Your task to perform on an android device: When is my next meeting? Image 0: 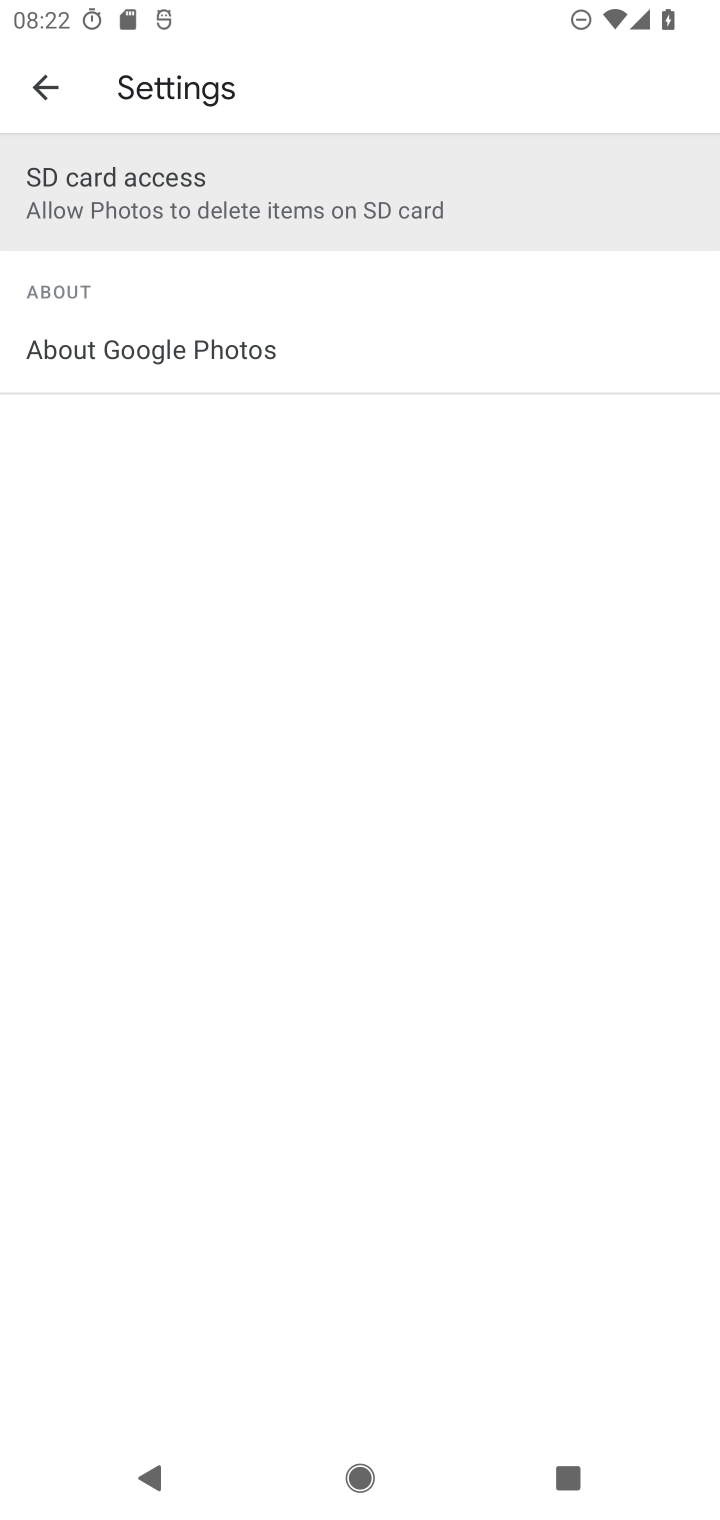
Step 0: press home button
Your task to perform on an android device: When is my next meeting? Image 1: 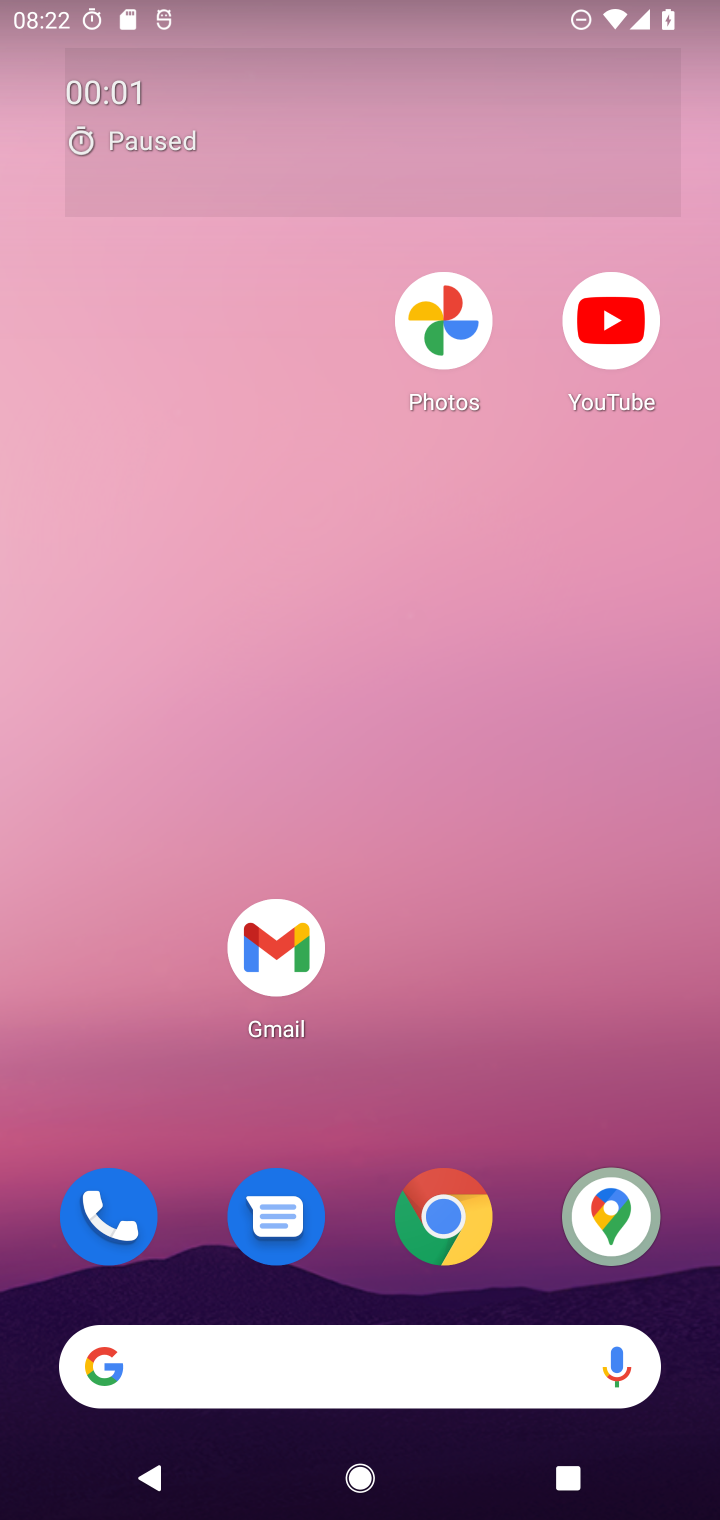
Step 1: drag from (537, 1137) to (466, 140)
Your task to perform on an android device: When is my next meeting? Image 2: 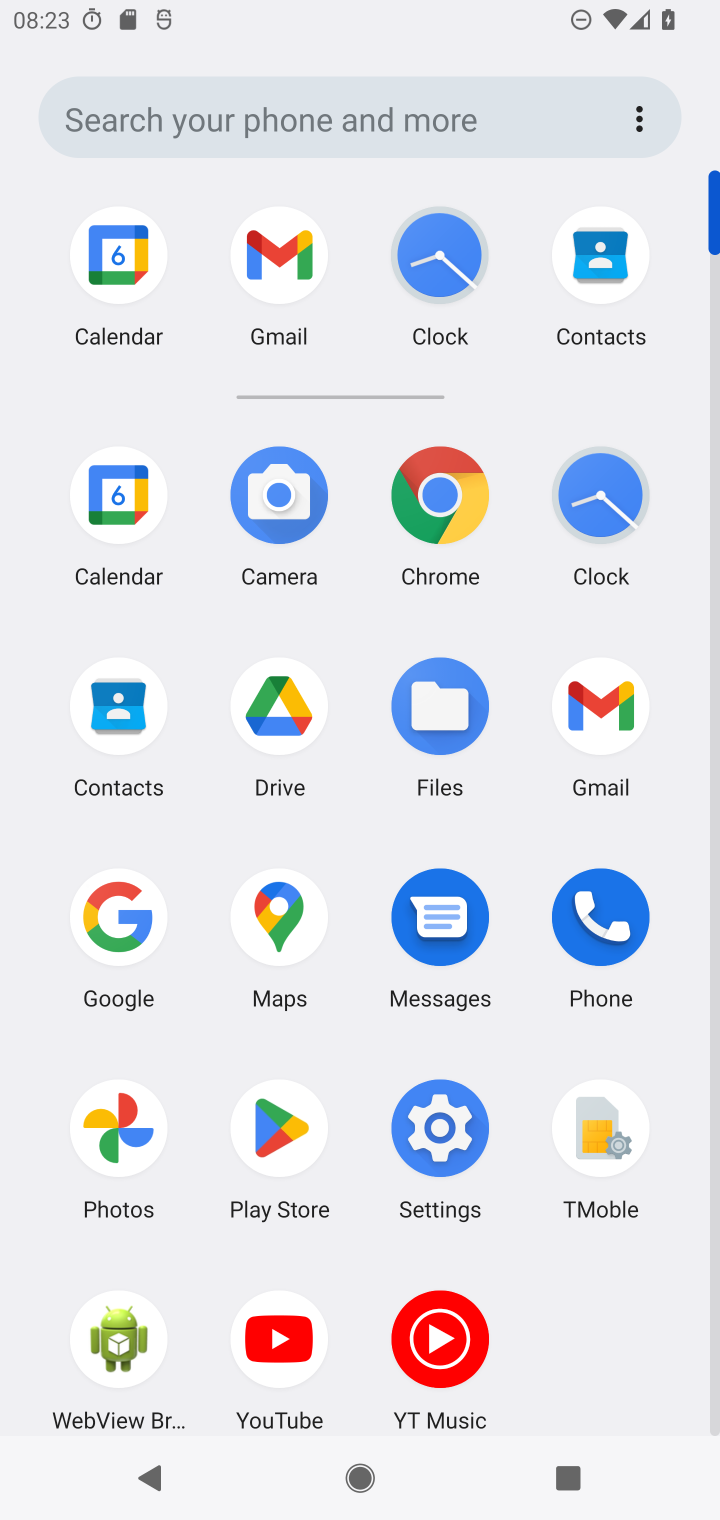
Step 2: click (115, 499)
Your task to perform on an android device: When is my next meeting? Image 3: 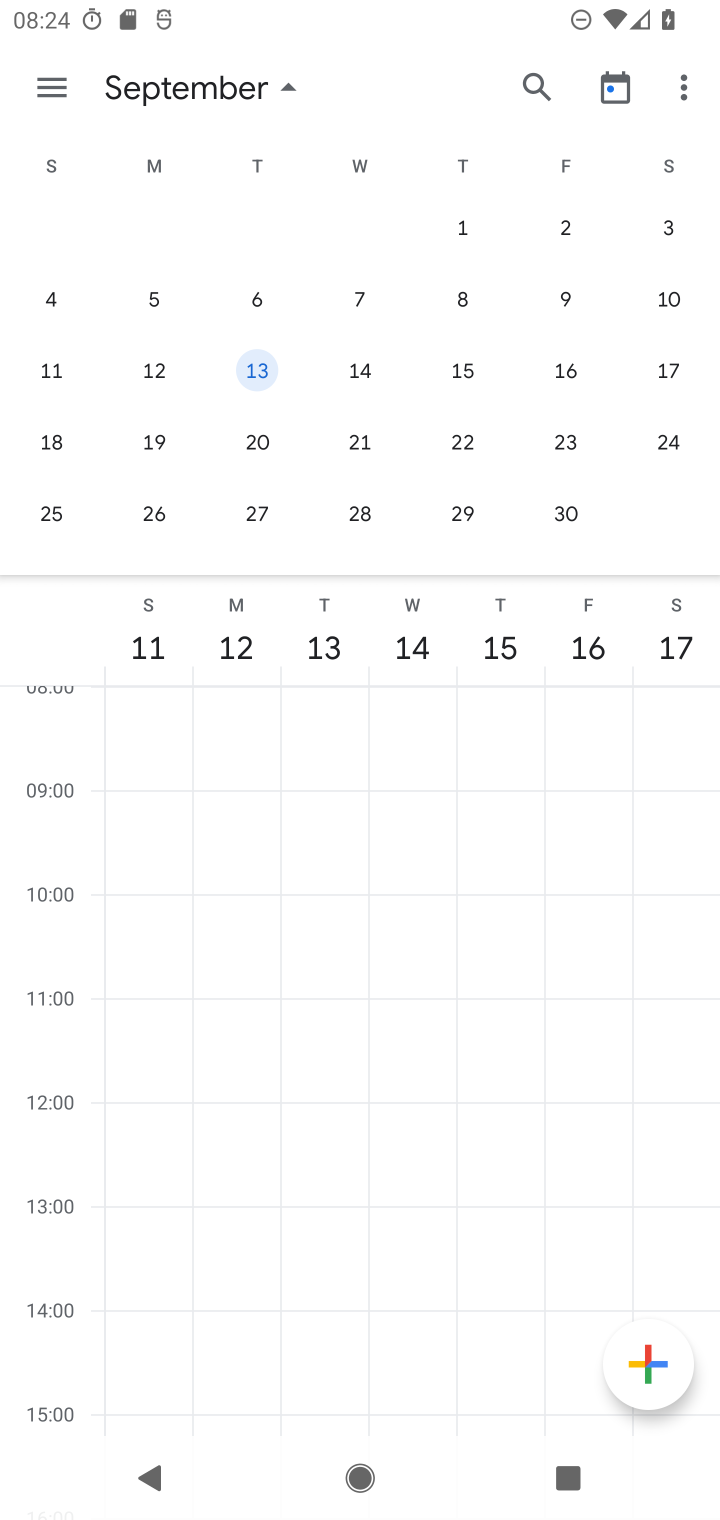
Step 3: drag from (132, 349) to (714, 367)
Your task to perform on an android device: When is my next meeting? Image 4: 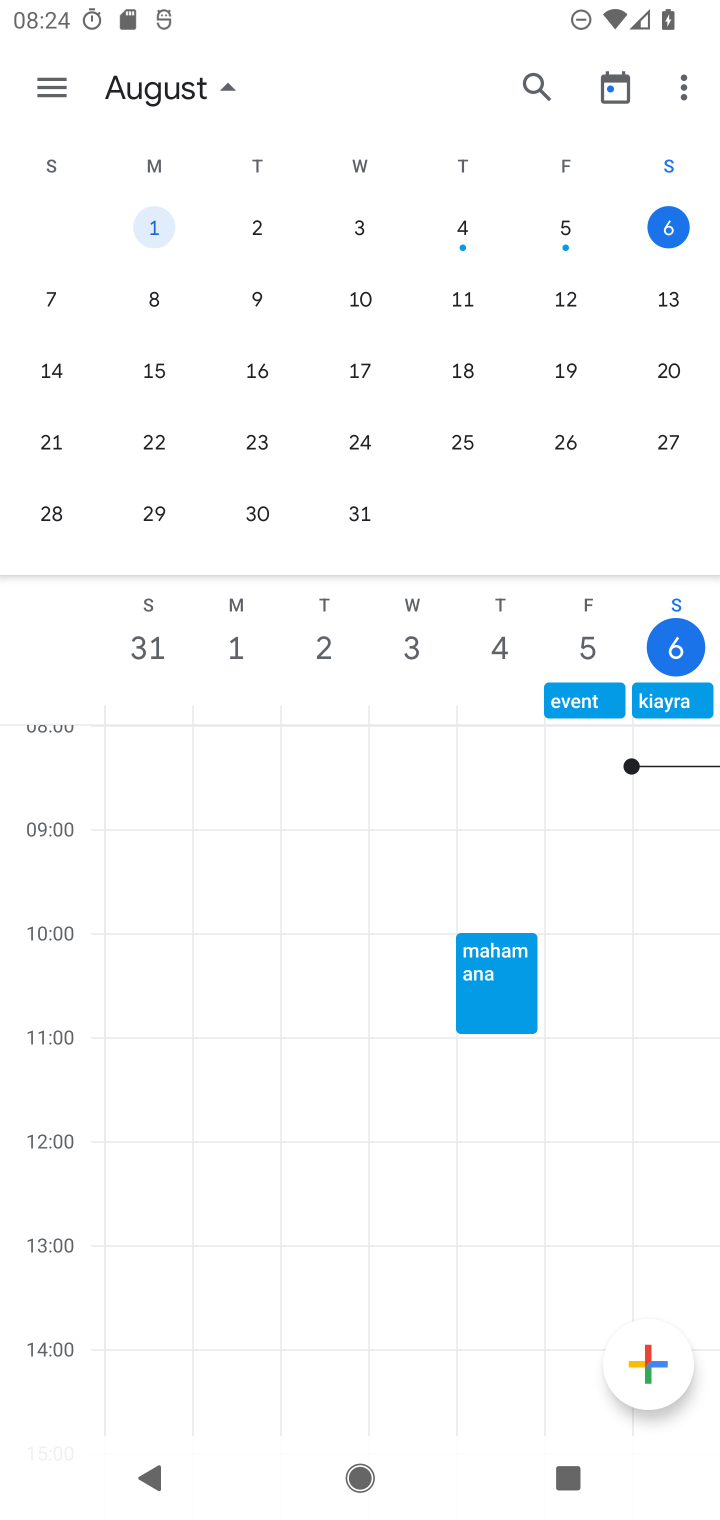
Step 4: click (576, 367)
Your task to perform on an android device: When is my next meeting? Image 5: 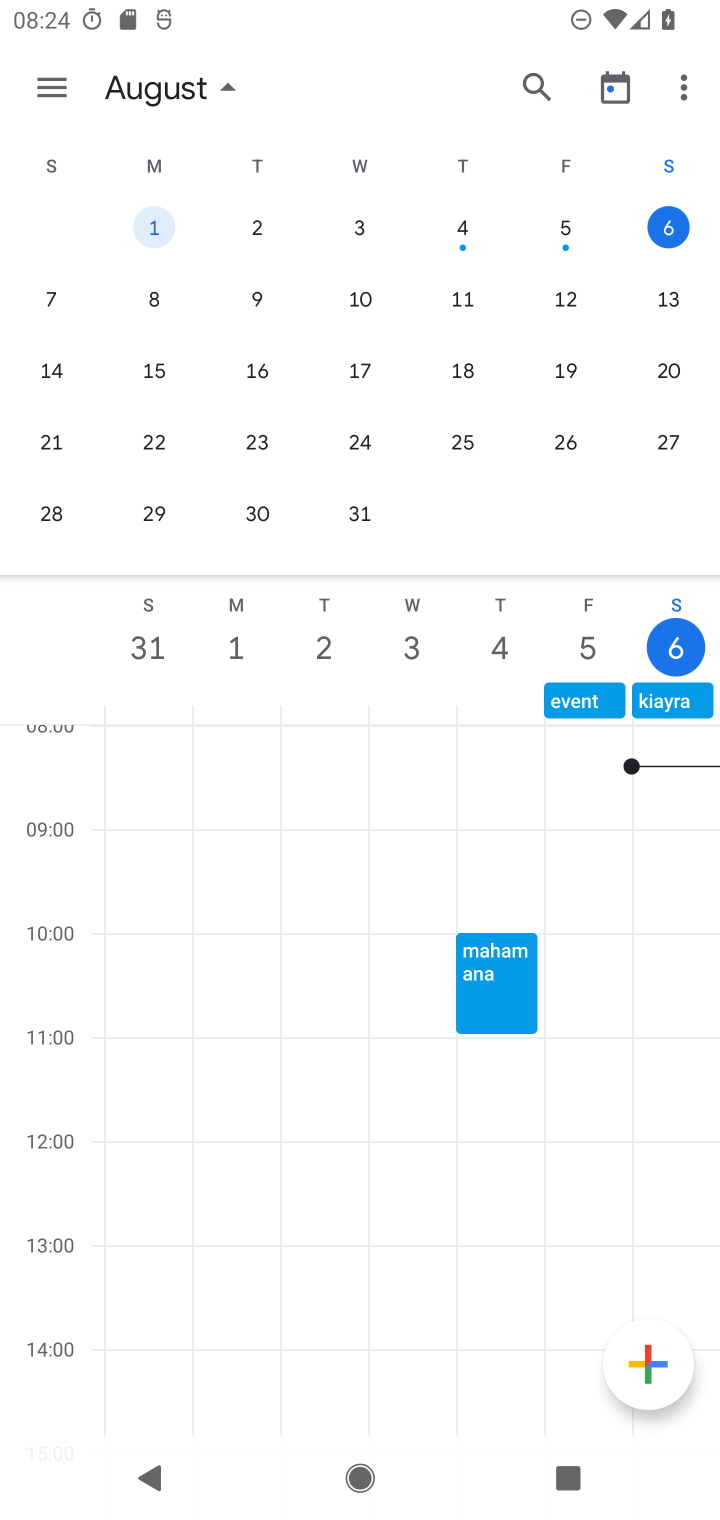
Step 5: click (161, 291)
Your task to perform on an android device: When is my next meeting? Image 6: 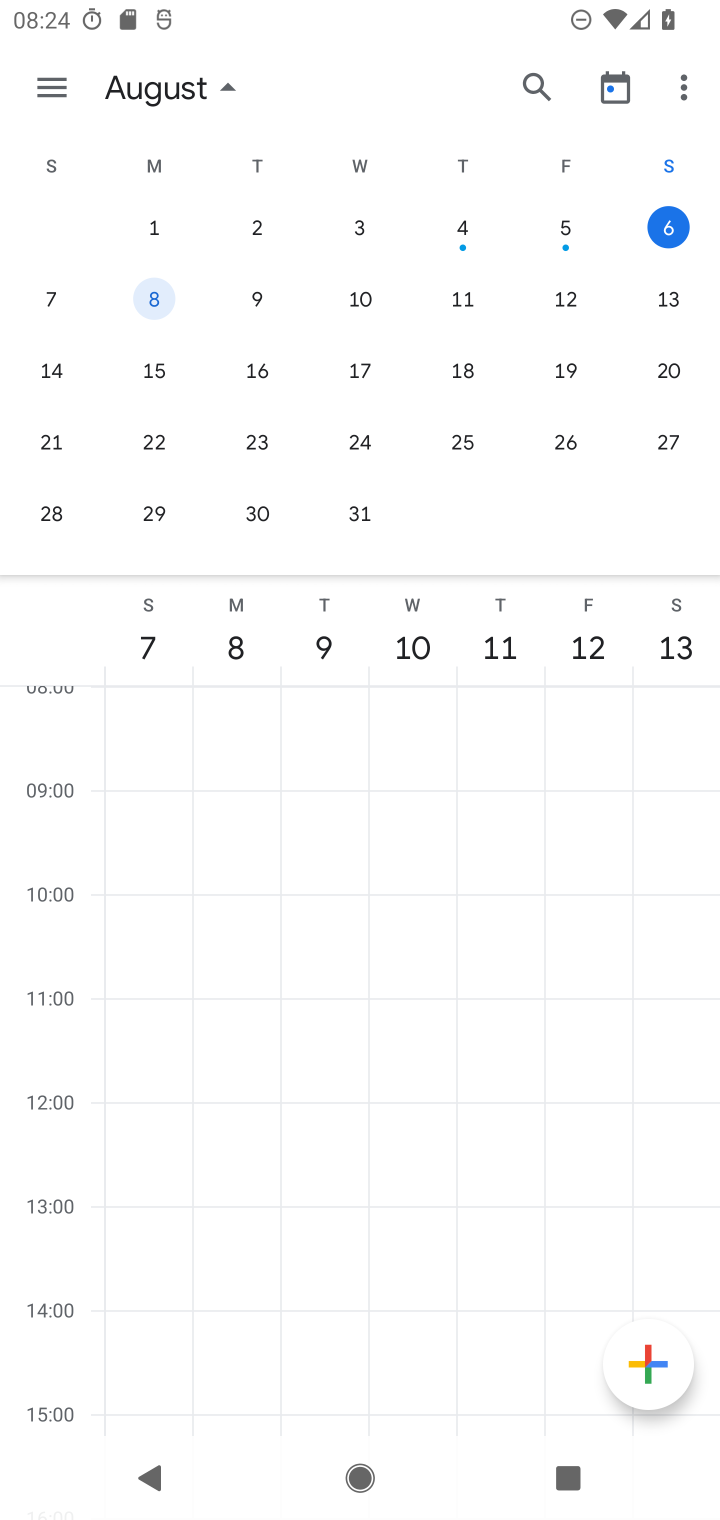
Step 6: click (257, 302)
Your task to perform on an android device: When is my next meeting? Image 7: 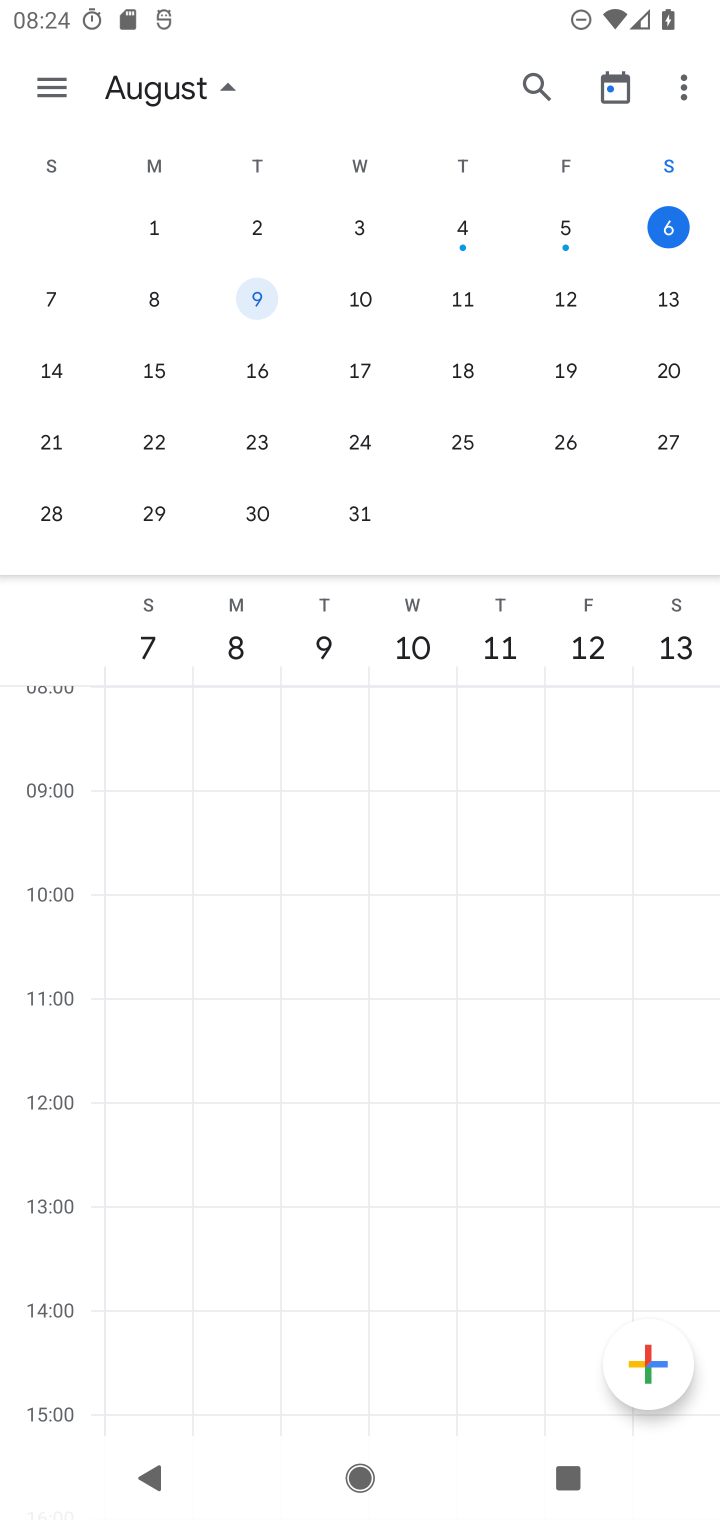
Step 7: task complete